Your task to perform on an android device: open chrome privacy settings Image 0: 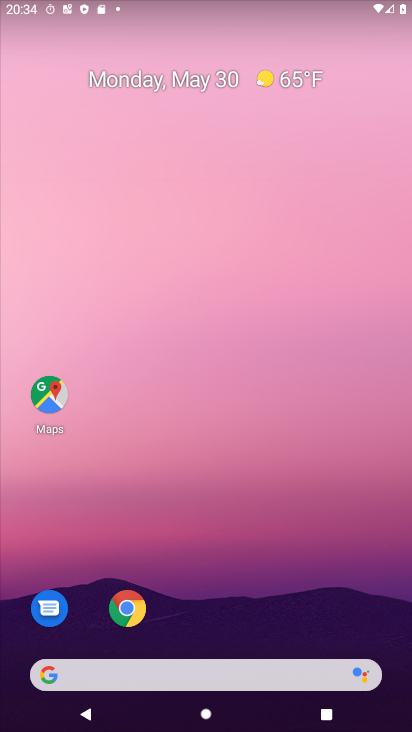
Step 0: click (141, 607)
Your task to perform on an android device: open chrome privacy settings Image 1: 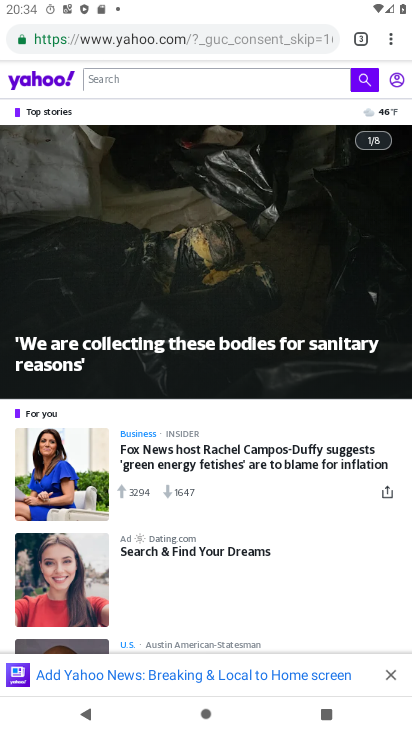
Step 1: click (389, 42)
Your task to perform on an android device: open chrome privacy settings Image 2: 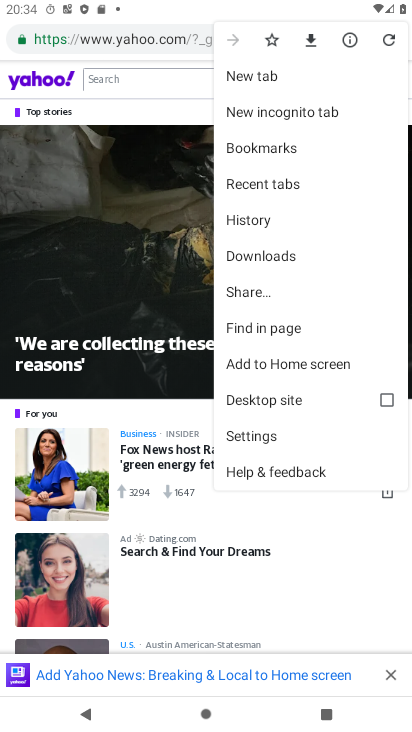
Step 2: drag from (292, 452) to (287, 248)
Your task to perform on an android device: open chrome privacy settings Image 3: 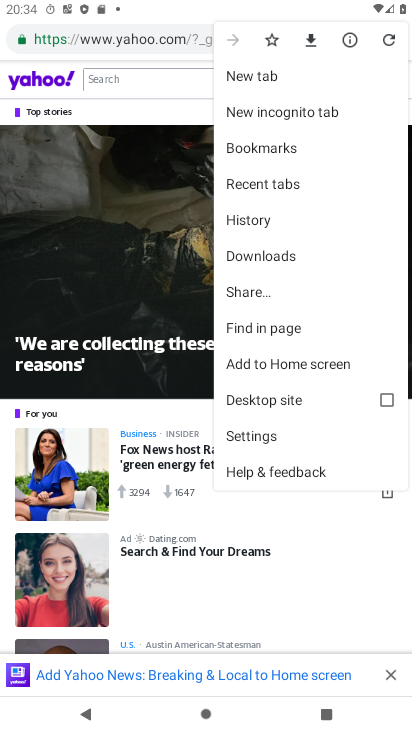
Step 3: drag from (327, 395) to (304, 202)
Your task to perform on an android device: open chrome privacy settings Image 4: 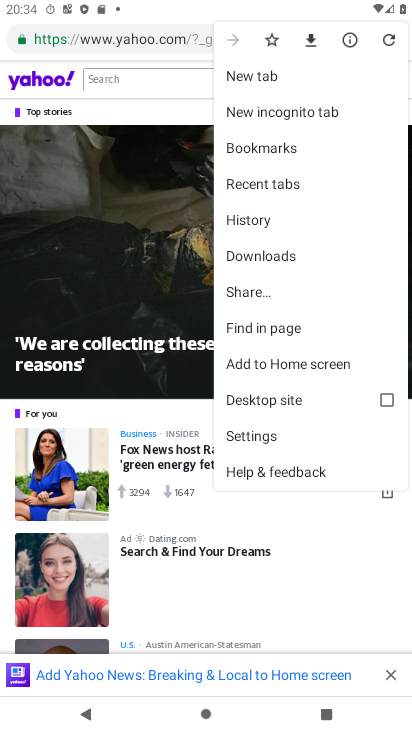
Step 4: drag from (277, 375) to (284, 191)
Your task to perform on an android device: open chrome privacy settings Image 5: 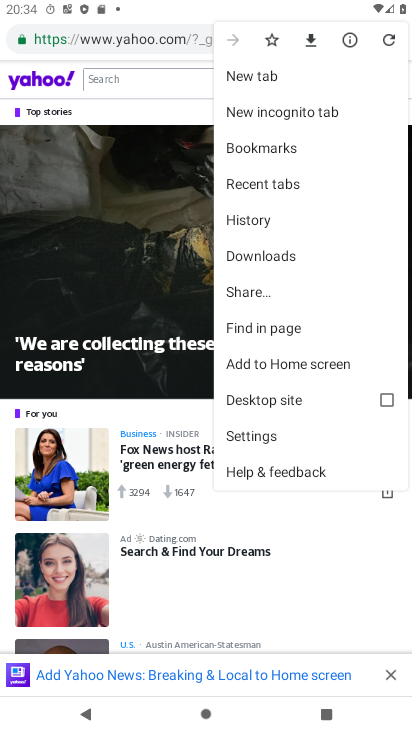
Step 5: drag from (271, 393) to (294, 163)
Your task to perform on an android device: open chrome privacy settings Image 6: 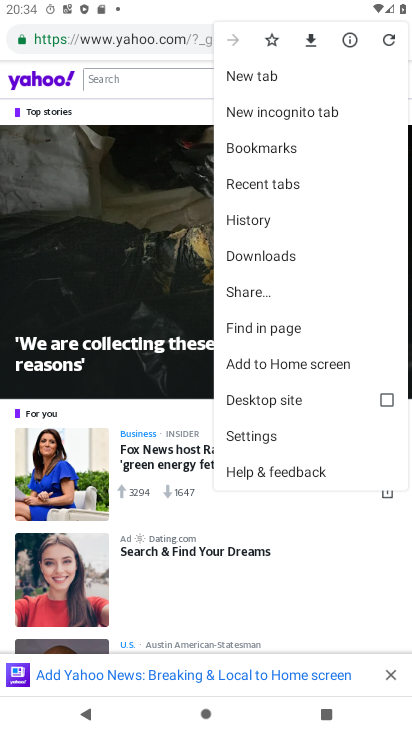
Step 6: click (267, 430)
Your task to perform on an android device: open chrome privacy settings Image 7: 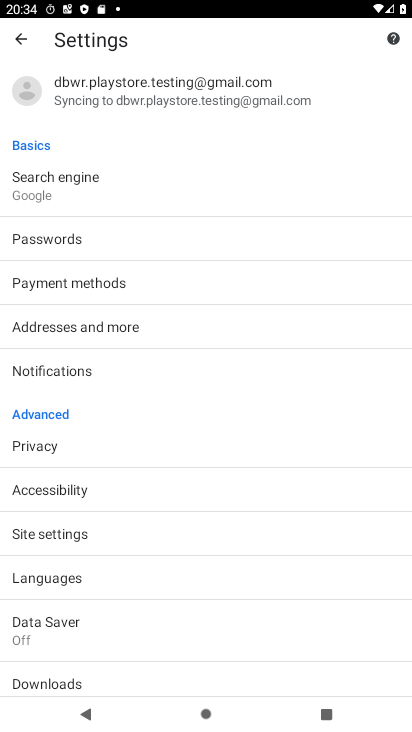
Step 7: click (43, 439)
Your task to perform on an android device: open chrome privacy settings Image 8: 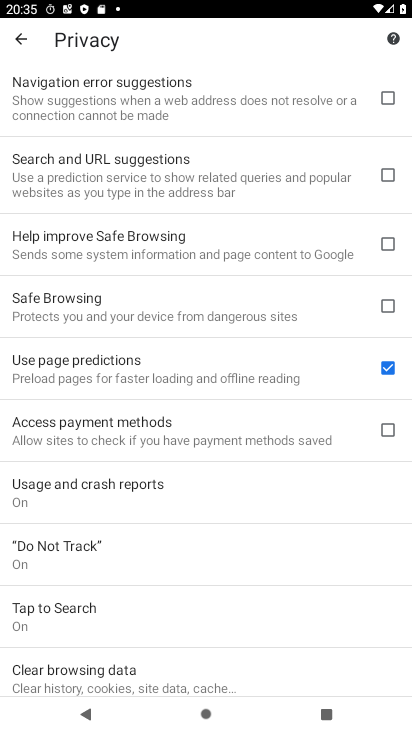
Step 8: task complete